Your task to perform on an android device: Open Maps and search for coffee Image 0: 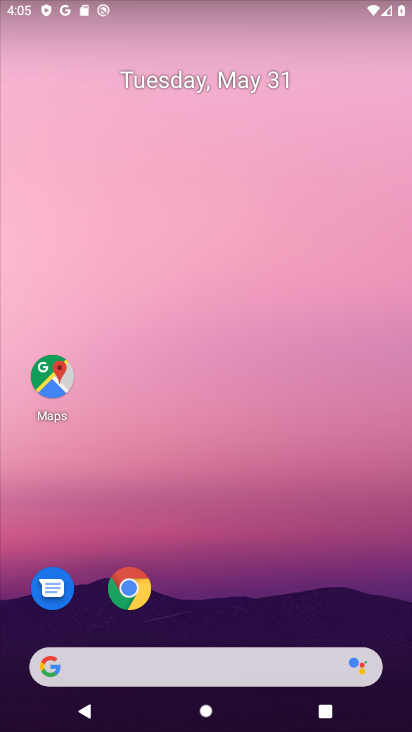
Step 0: drag from (228, 621) to (182, 30)
Your task to perform on an android device: Open Maps and search for coffee Image 1: 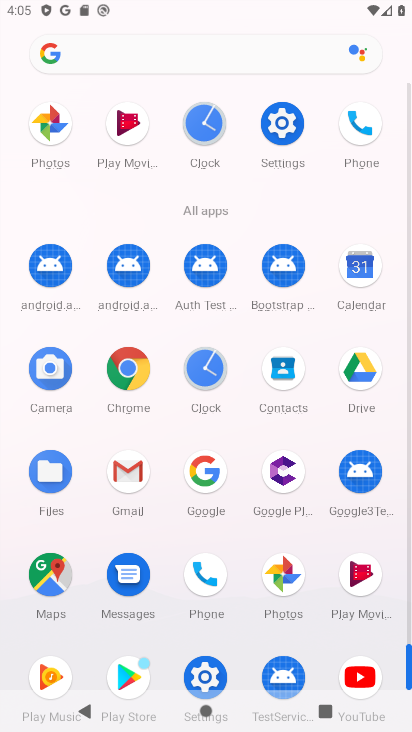
Step 1: drag from (168, 636) to (176, 187)
Your task to perform on an android device: Open Maps and search for coffee Image 2: 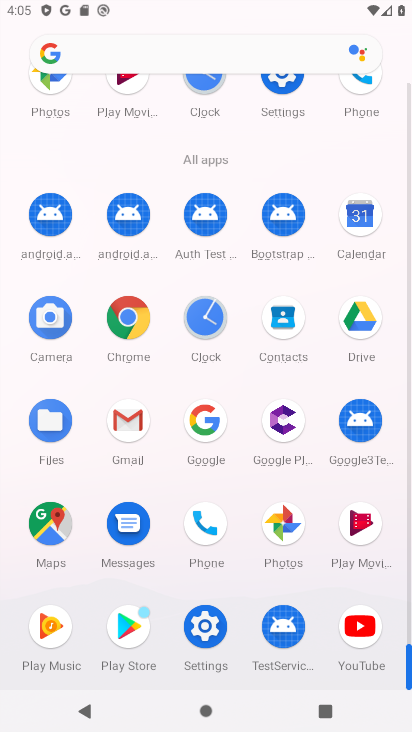
Step 2: click (59, 518)
Your task to perform on an android device: Open Maps and search for coffee Image 3: 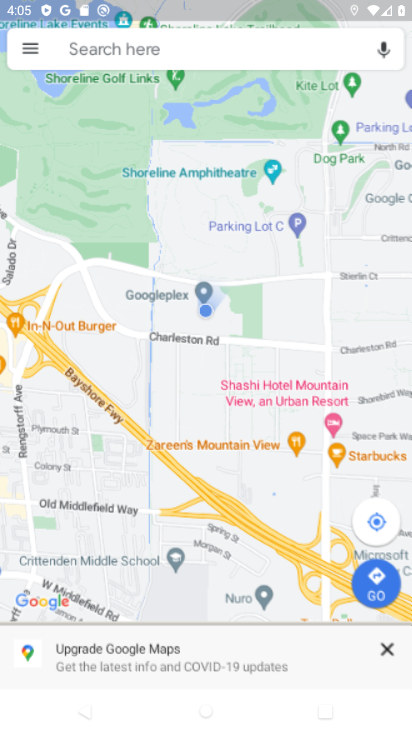
Step 3: click (120, 44)
Your task to perform on an android device: Open Maps and search for coffee Image 4: 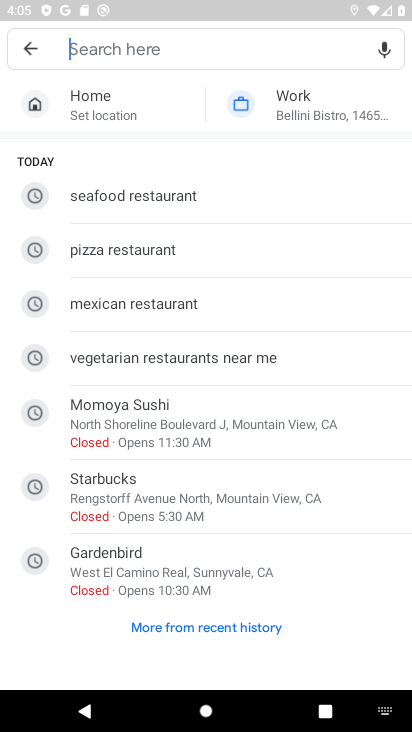
Step 4: type "coffee"
Your task to perform on an android device: Open Maps and search for coffee Image 5: 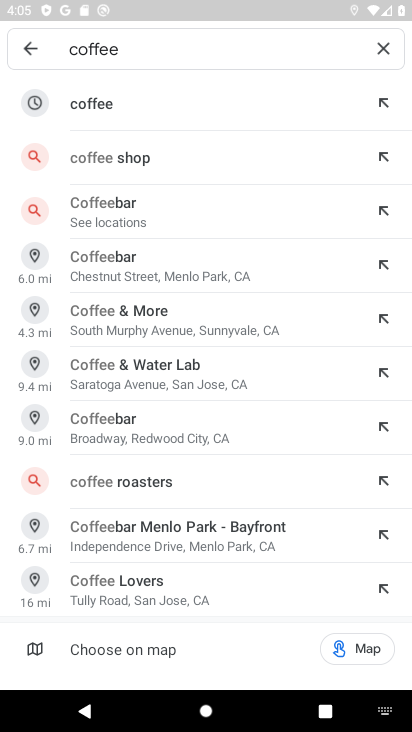
Step 5: click (120, 171)
Your task to perform on an android device: Open Maps and search for coffee Image 6: 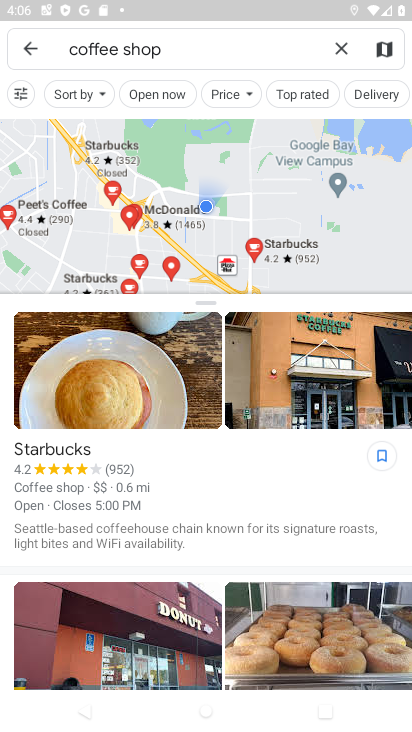
Step 6: task complete